Your task to perform on an android device: Go to Wikipedia Image 0: 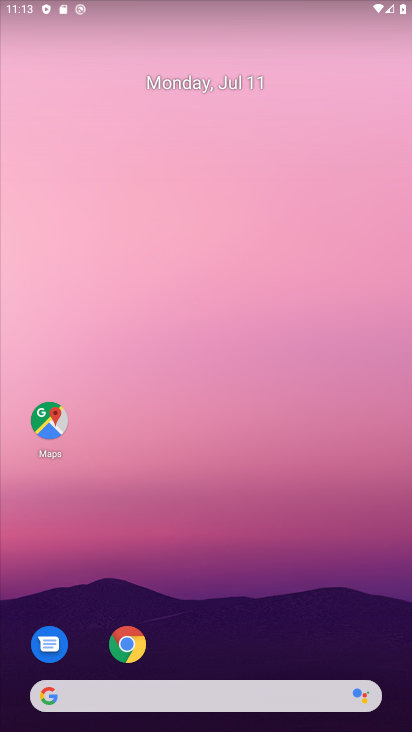
Step 0: click (130, 642)
Your task to perform on an android device: Go to Wikipedia Image 1: 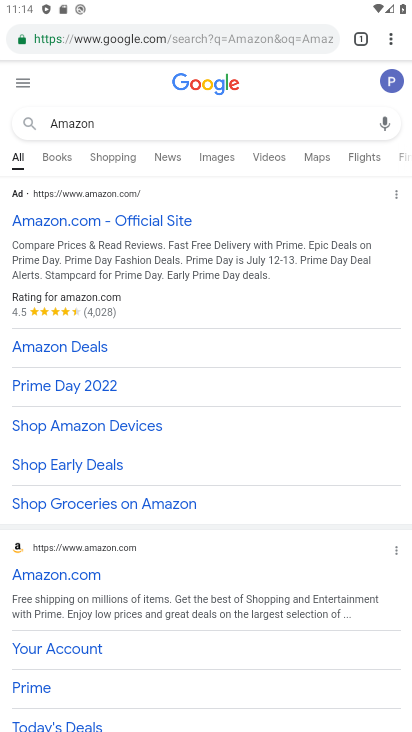
Step 1: click (326, 42)
Your task to perform on an android device: Go to Wikipedia Image 2: 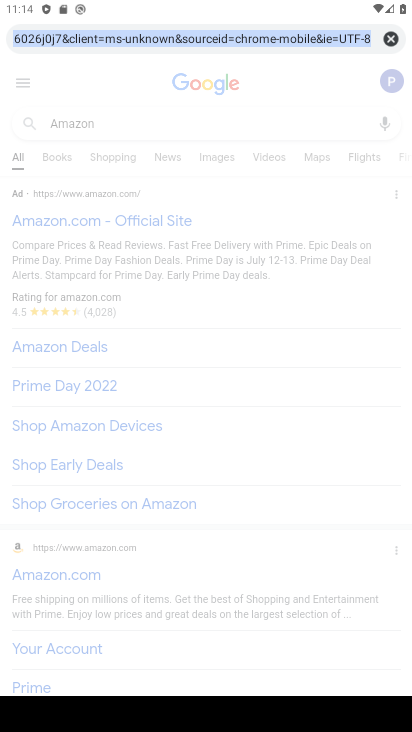
Step 2: click (385, 33)
Your task to perform on an android device: Go to Wikipedia Image 3: 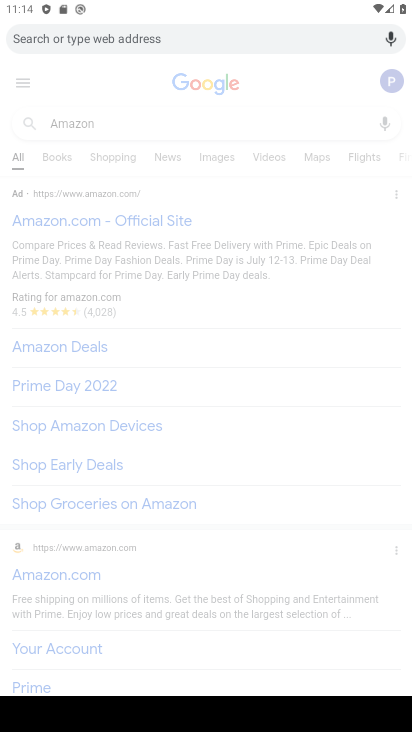
Step 3: type "Wikipedia"
Your task to perform on an android device: Go to Wikipedia Image 4: 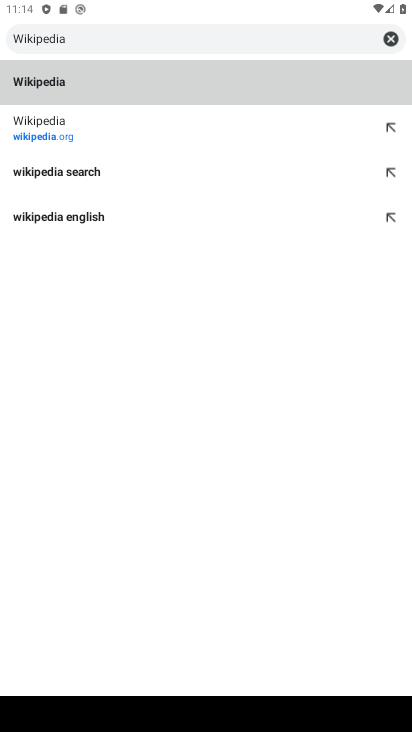
Step 4: click (33, 84)
Your task to perform on an android device: Go to Wikipedia Image 5: 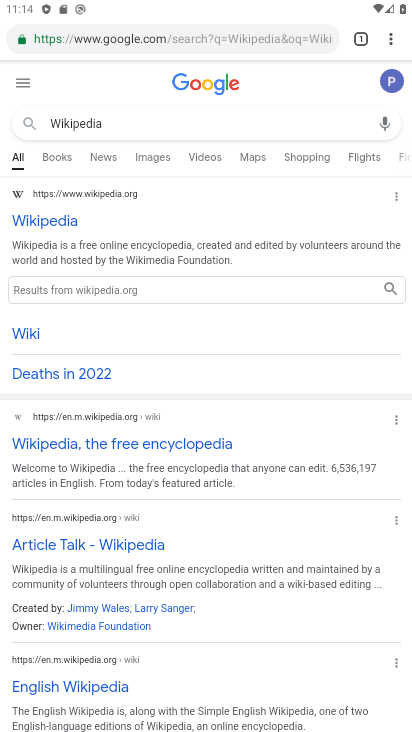
Step 5: click (67, 221)
Your task to perform on an android device: Go to Wikipedia Image 6: 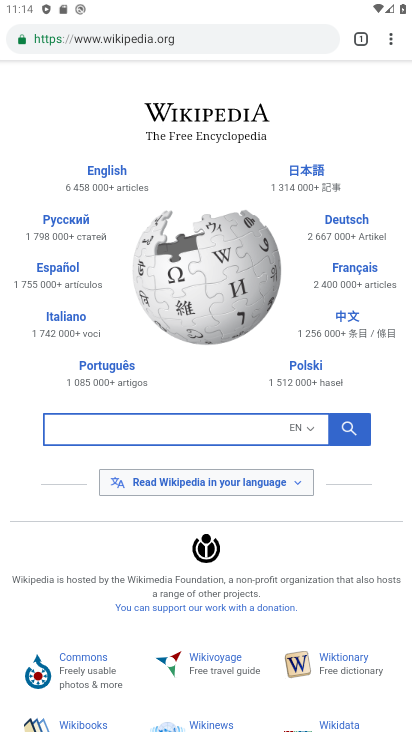
Step 6: task complete